Your task to perform on an android device: Go to privacy settings Image 0: 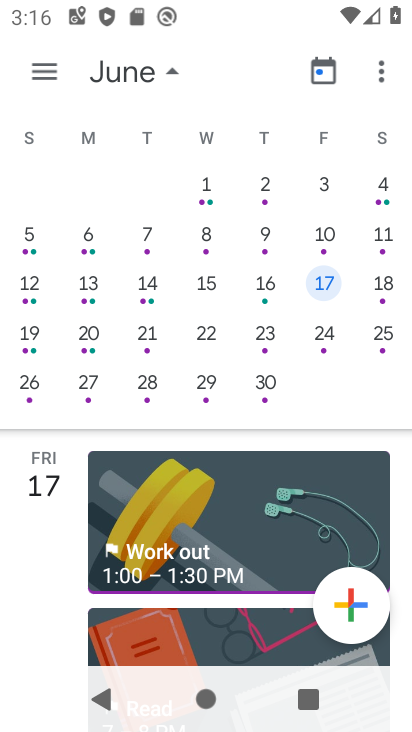
Step 0: press home button
Your task to perform on an android device: Go to privacy settings Image 1: 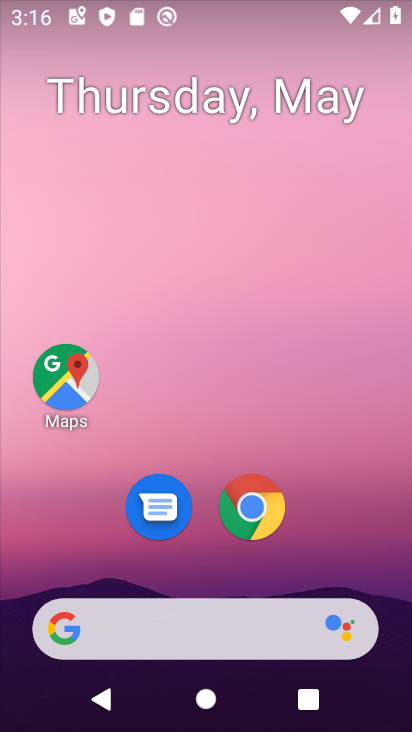
Step 1: drag from (299, 522) to (325, 118)
Your task to perform on an android device: Go to privacy settings Image 2: 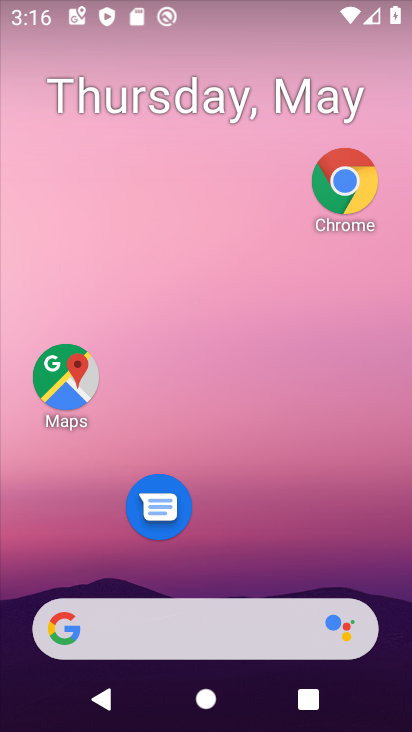
Step 2: click (314, 504)
Your task to perform on an android device: Go to privacy settings Image 3: 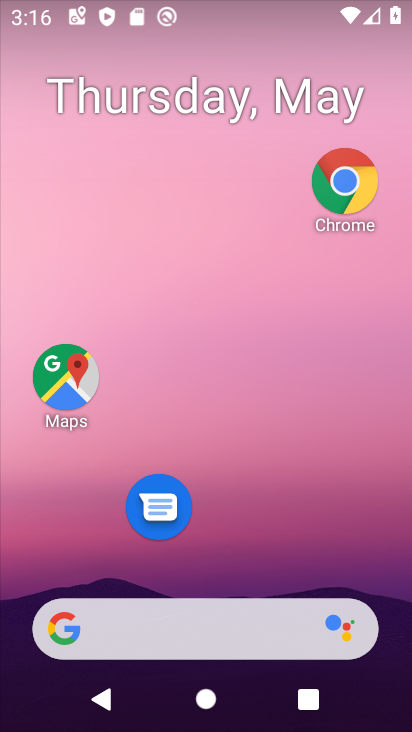
Step 3: drag from (300, 518) to (320, 110)
Your task to perform on an android device: Go to privacy settings Image 4: 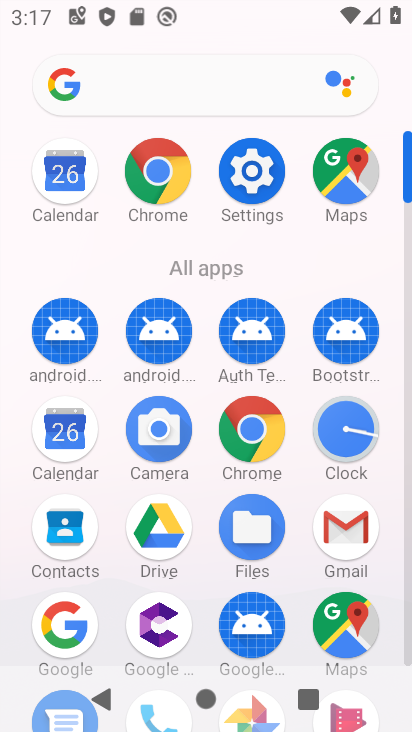
Step 4: click (249, 167)
Your task to perform on an android device: Go to privacy settings Image 5: 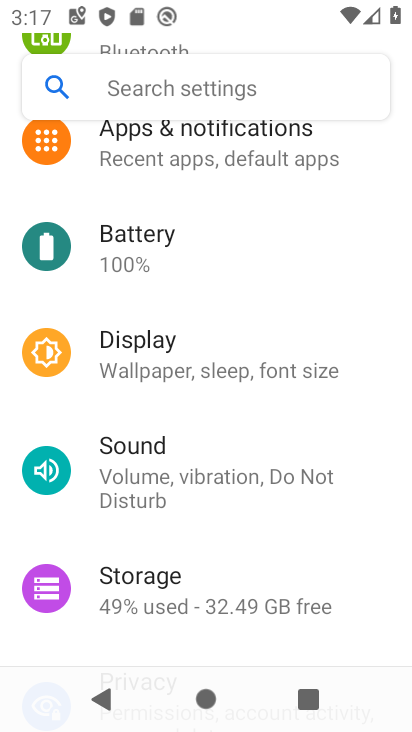
Step 5: drag from (218, 555) to (249, 267)
Your task to perform on an android device: Go to privacy settings Image 6: 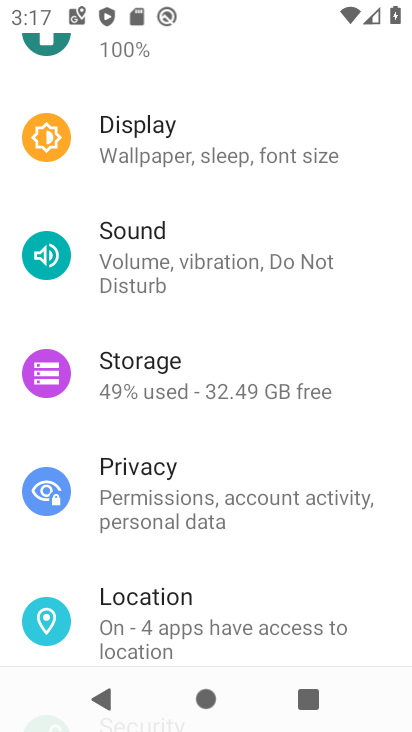
Step 6: click (137, 494)
Your task to perform on an android device: Go to privacy settings Image 7: 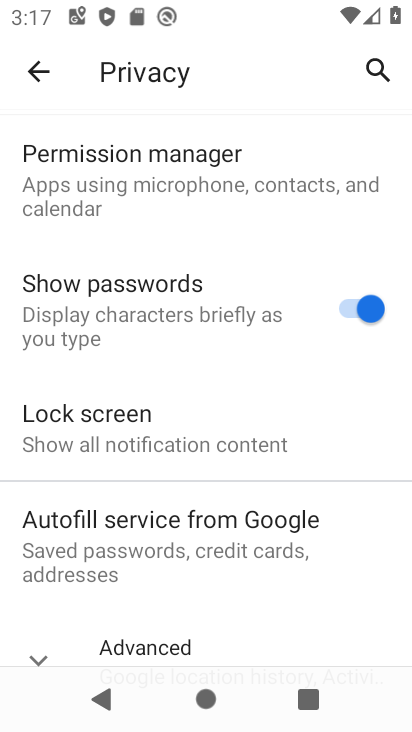
Step 7: task complete